Your task to perform on an android device: toggle priority inbox in the gmail app Image 0: 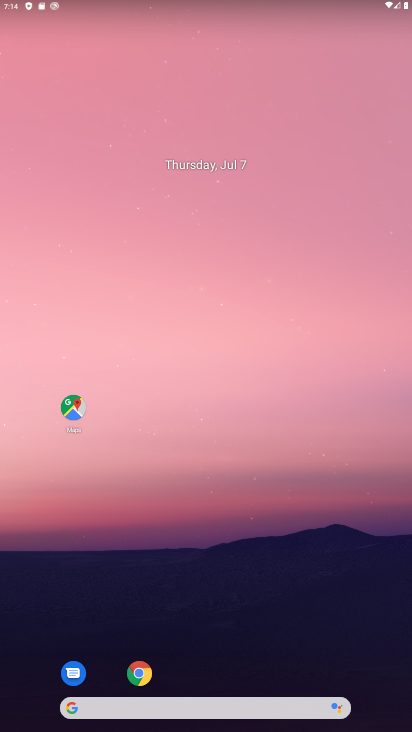
Step 0: drag from (222, 614) to (195, 34)
Your task to perform on an android device: toggle priority inbox in the gmail app Image 1: 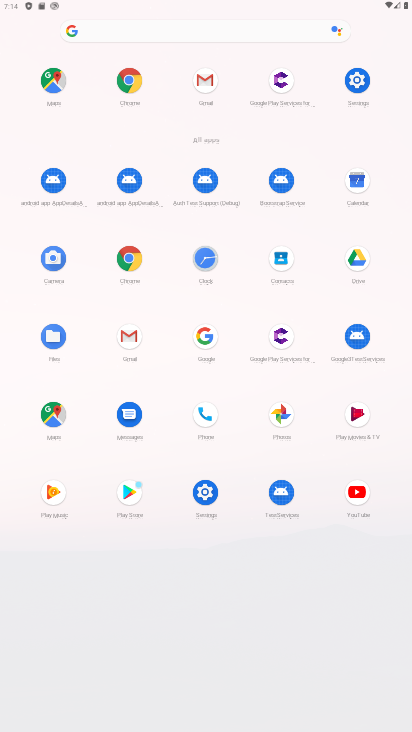
Step 1: click (205, 81)
Your task to perform on an android device: toggle priority inbox in the gmail app Image 2: 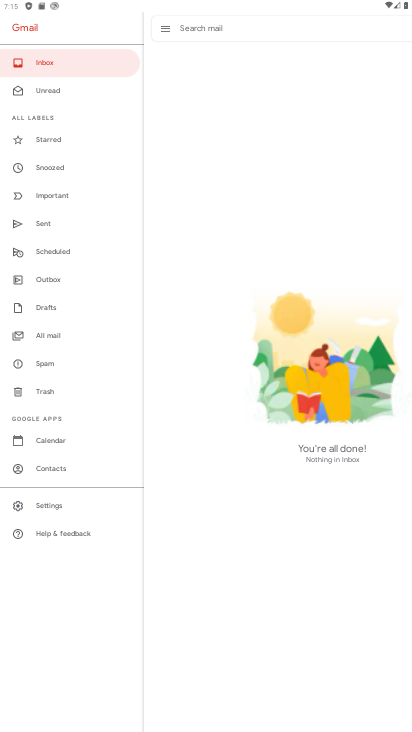
Step 2: click (47, 504)
Your task to perform on an android device: toggle priority inbox in the gmail app Image 3: 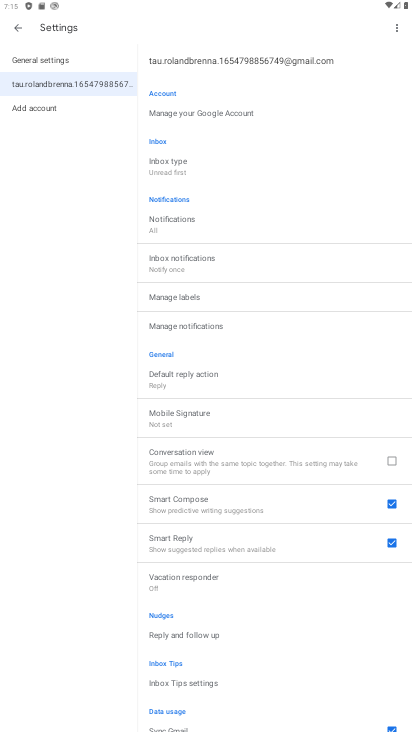
Step 3: click (160, 168)
Your task to perform on an android device: toggle priority inbox in the gmail app Image 4: 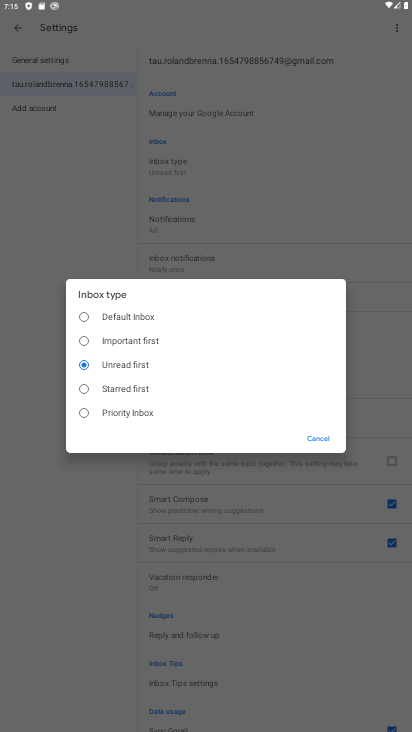
Step 4: click (85, 413)
Your task to perform on an android device: toggle priority inbox in the gmail app Image 5: 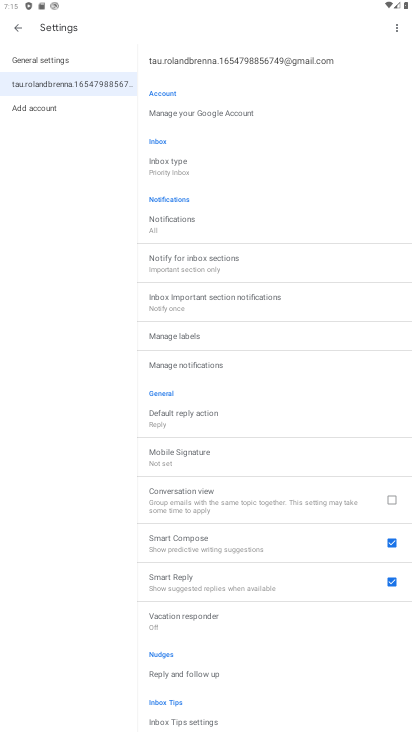
Step 5: task complete